Your task to perform on an android device: turn off translation in the chrome app Image 0: 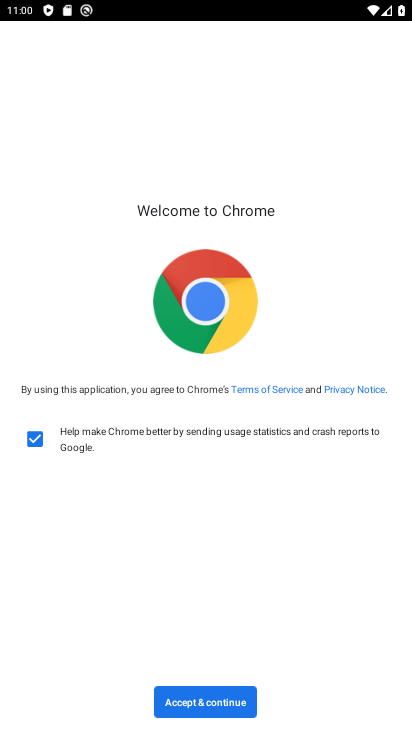
Step 0: press home button
Your task to perform on an android device: turn off translation in the chrome app Image 1: 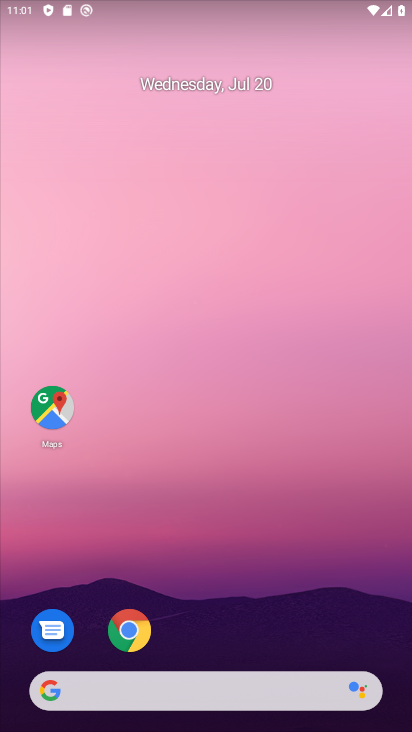
Step 1: click (119, 623)
Your task to perform on an android device: turn off translation in the chrome app Image 2: 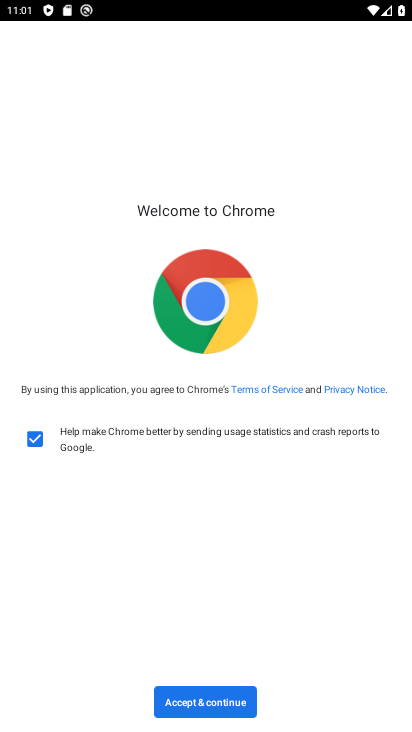
Step 2: click (198, 701)
Your task to perform on an android device: turn off translation in the chrome app Image 3: 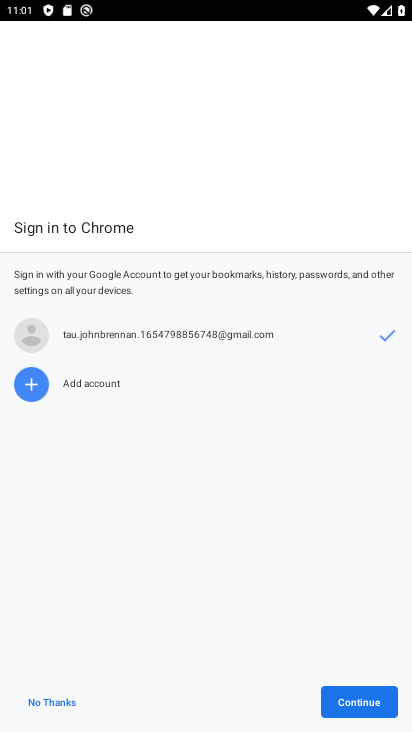
Step 3: click (345, 692)
Your task to perform on an android device: turn off translation in the chrome app Image 4: 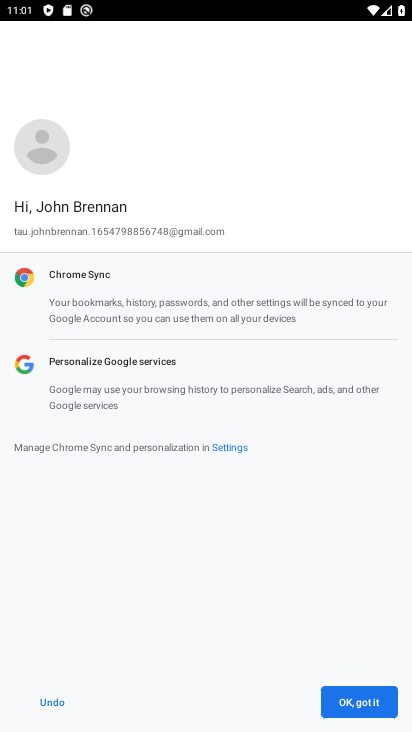
Step 4: click (352, 699)
Your task to perform on an android device: turn off translation in the chrome app Image 5: 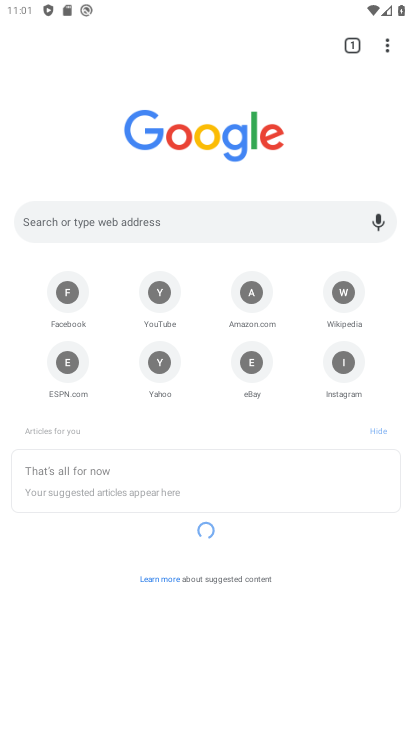
Step 5: click (387, 52)
Your task to perform on an android device: turn off translation in the chrome app Image 6: 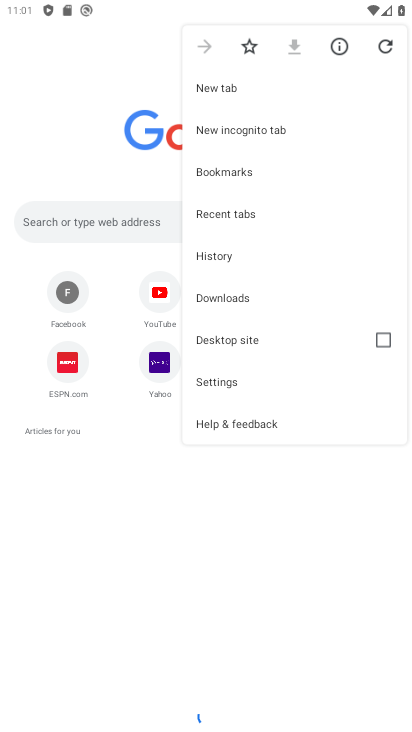
Step 6: click (237, 384)
Your task to perform on an android device: turn off translation in the chrome app Image 7: 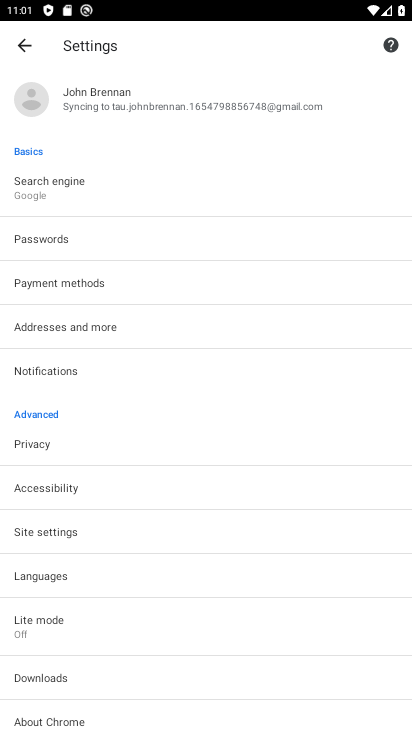
Step 7: click (46, 578)
Your task to perform on an android device: turn off translation in the chrome app Image 8: 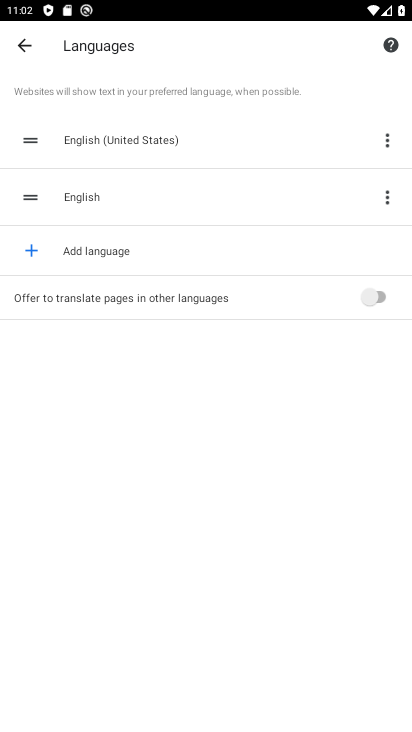
Step 8: task complete